Your task to perform on an android device: turn on the 12-hour format for clock Image 0: 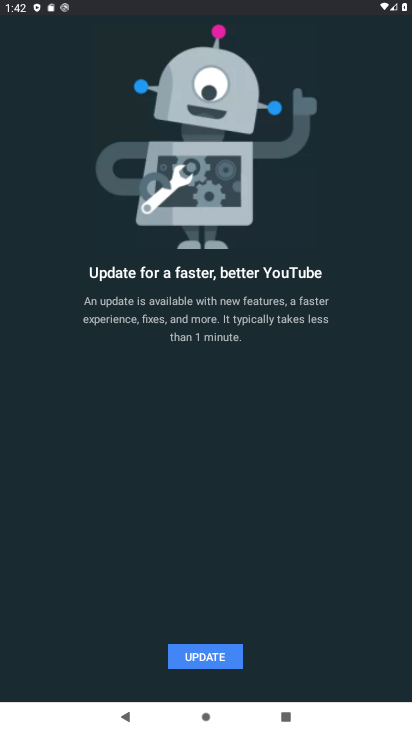
Step 0: click (358, 619)
Your task to perform on an android device: turn on the 12-hour format for clock Image 1: 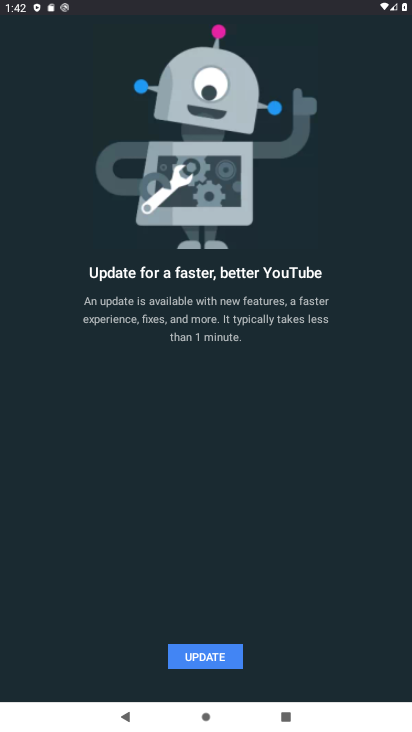
Step 1: press home button
Your task to perform on an android device: turn on the 12-hour format for clock Image 2: 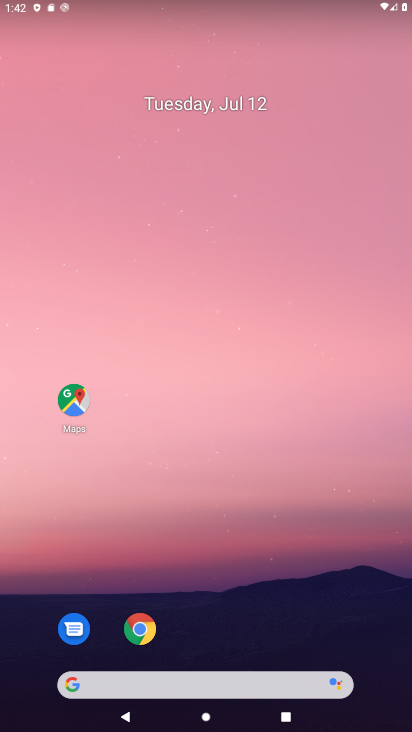
Step 2: drag from (367, 627) to (302, 53)
Your task to perform on an android device: turn on the 12-hour format for clock Image 3: 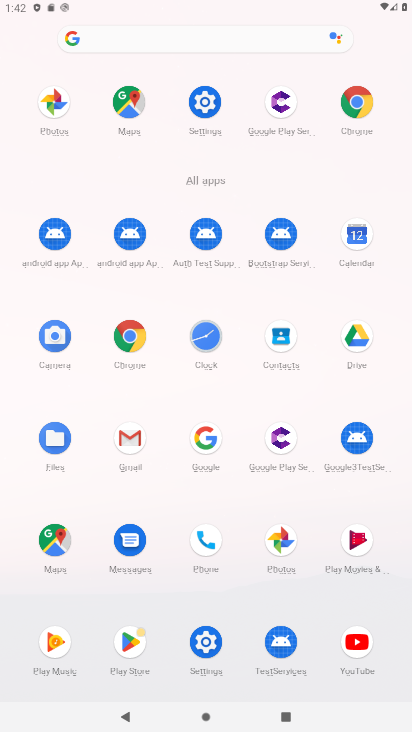
Step 3: click (201, 333)
Your task to perform on an android device: turn on the 12-hour format for clock Image 4: 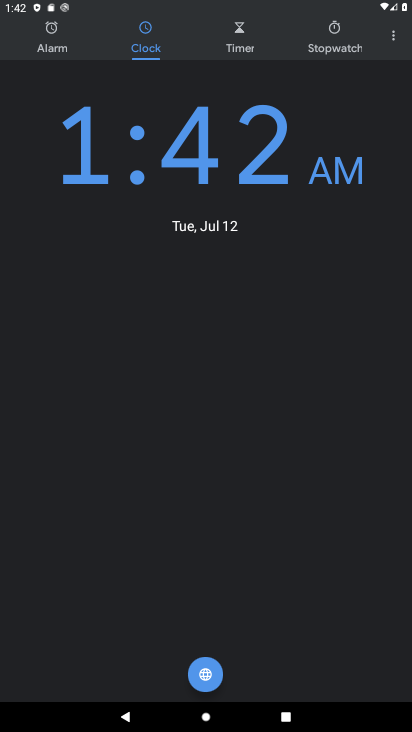
Step 4: click (399, 34)
Your task to perform on an android device: turn on the 12-hour format for clock Image 5: 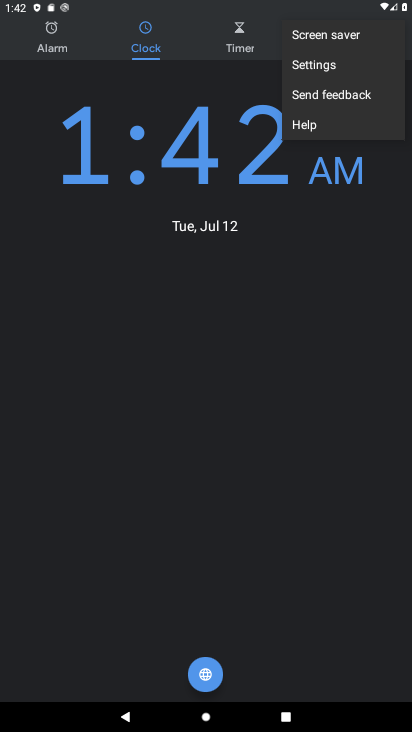
Step 5: click (388, 58)
Your task to perform on an android device: turn on the 12-hour format for clock Image 6: 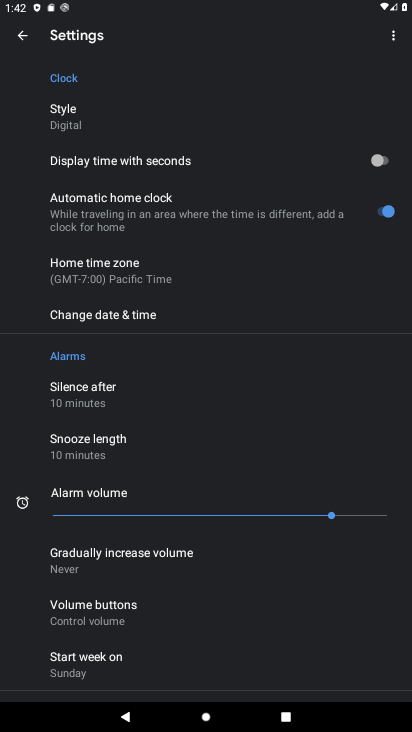
Step 6: click (304, 305)
Your task to perform on an android device: turn on the 12-hour format for clock Image 7: 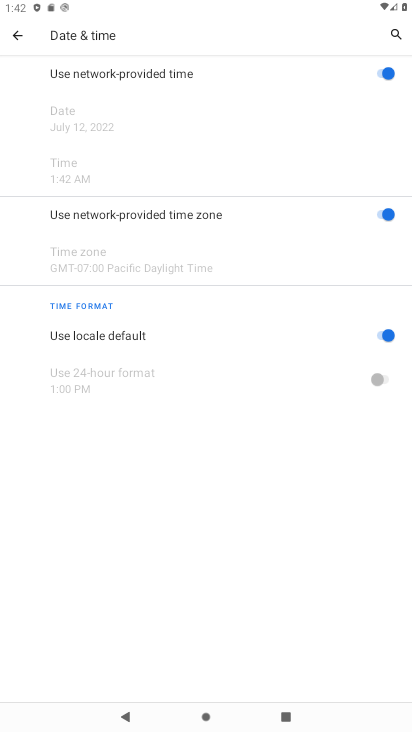
Step 7: task complete